Your task to perform on an android device: toggle wifi Image 0: 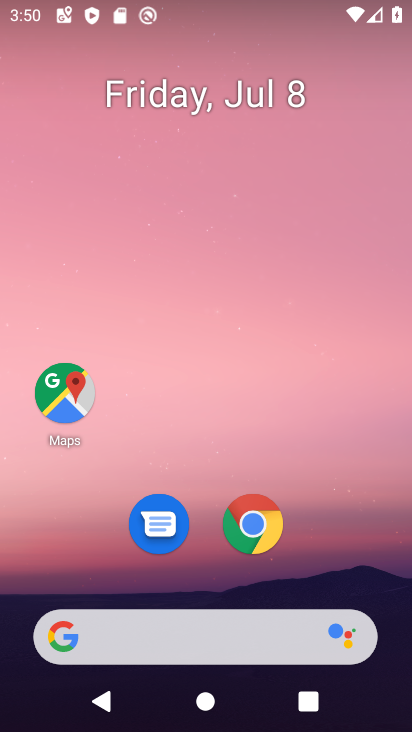
Step 0: drag from (226, 456) to (202, 3)
Your task to perform on an android device: toggle wifi Image 1: 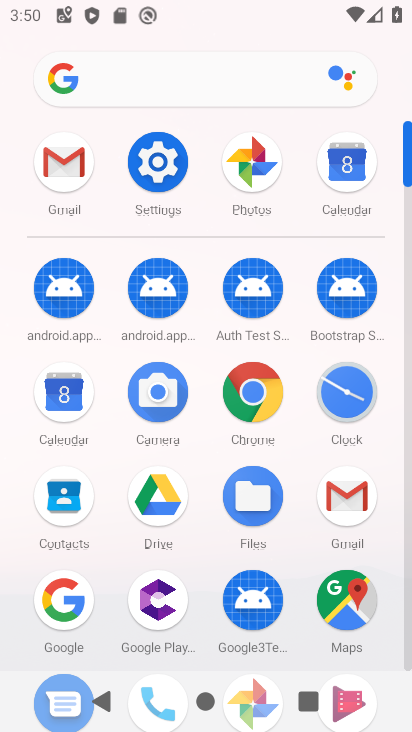
Step 1: click (162, 164)
Your task to perform on an android device: toggle wifi Image 2: 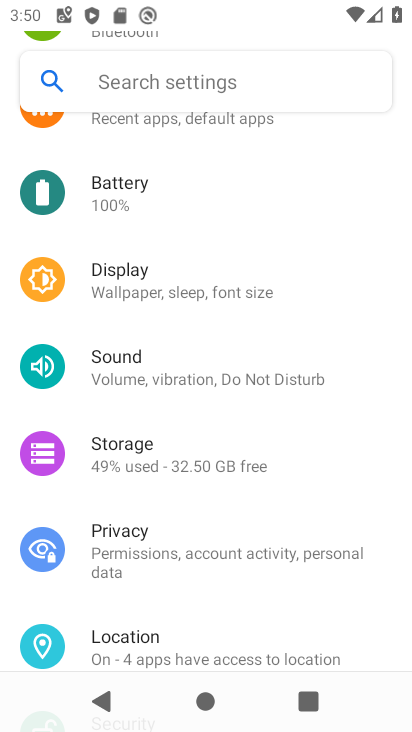
Step 2: drag from (246, 208) to (242, 658)
Your task to perform on an android device: toggle wifi Image 3: 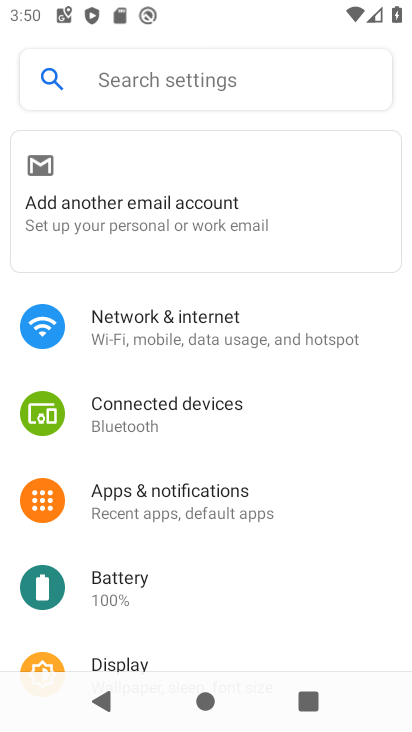
Step 3: click (237, 326)
Your task to perform on an android device: toggle wifi Image 4: 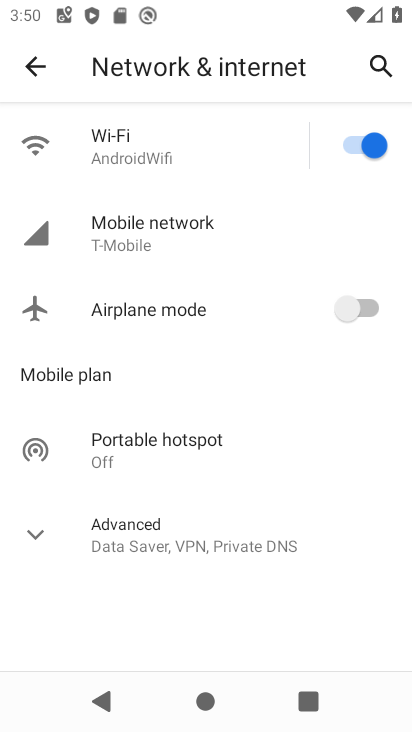
Step 4: click (350, 141)
Your task to perform on an android device: toggle wifi Image 5: 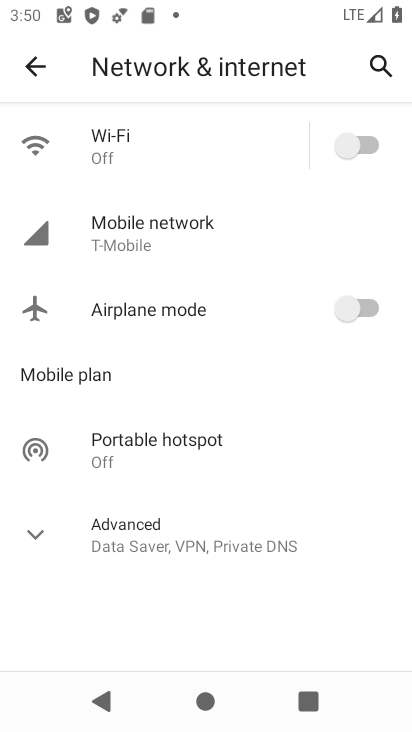
Step 5: task complete